Your task to perform on an android device: Open Maps and search for coffee Image 0: 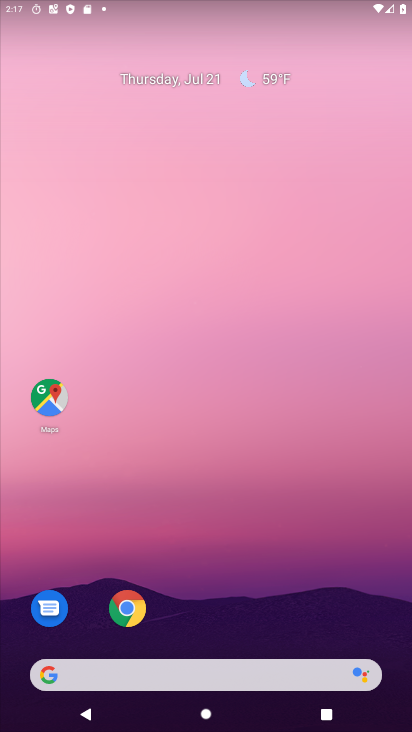
Step 0: click (48, 387)
Your task to perform on an android device: Open Maps and search for coffee Image 1: 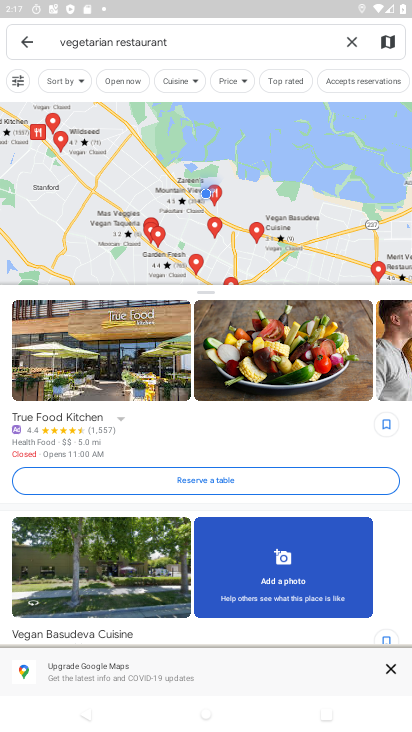
Step 1: click (183, 37)
Your task to perform on an android device: Open Maps and search for coffee Image 2: 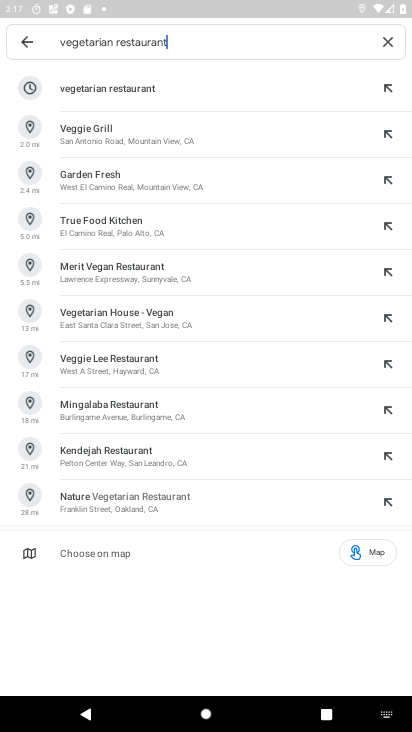
Step 2: click (380, 41)
Your task to perform on an android device: Open Maps and search for coffee Image 3: 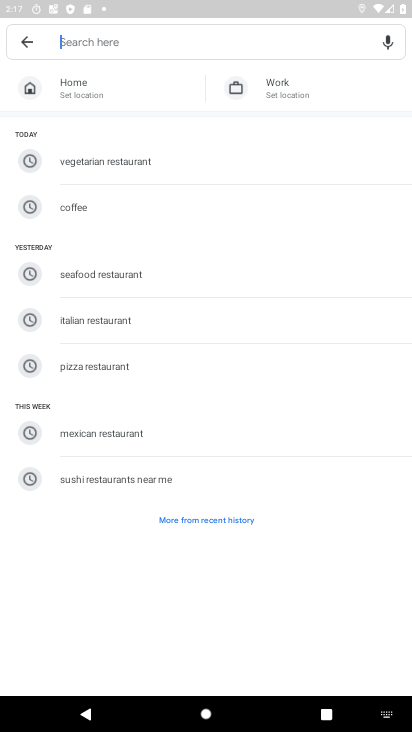
Step 3: type "coffee"
Your task to perform on an android device: Open Maps and search for coffee Image 4: 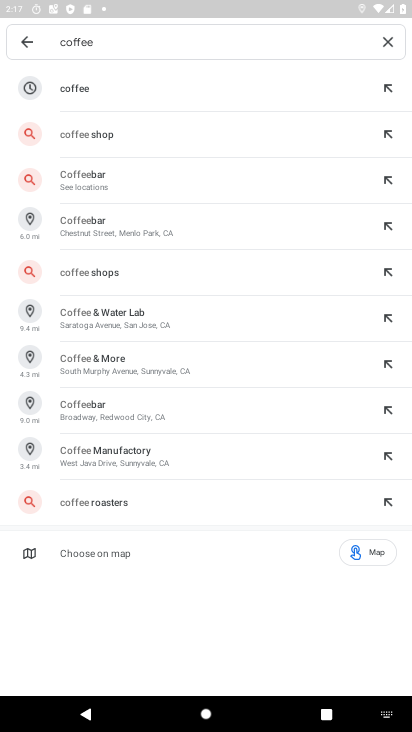
Step 4: click (78, 83)
Your task to perform on an android device: Open Maps and search for coffee Image 5: 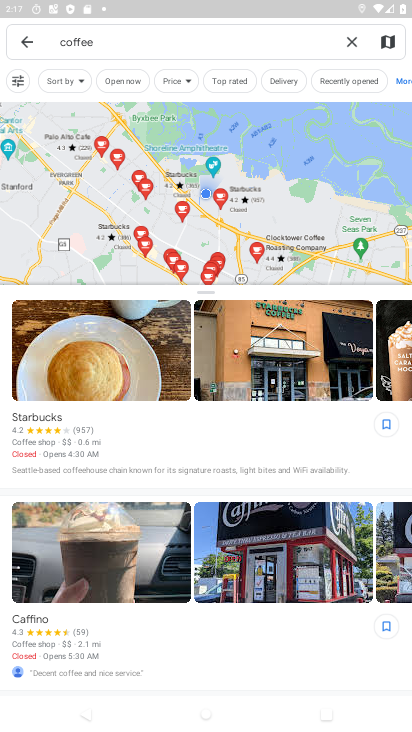
Step 5: task complete